Your task to perform on an android device: turn off notifications in google photos Image 0: 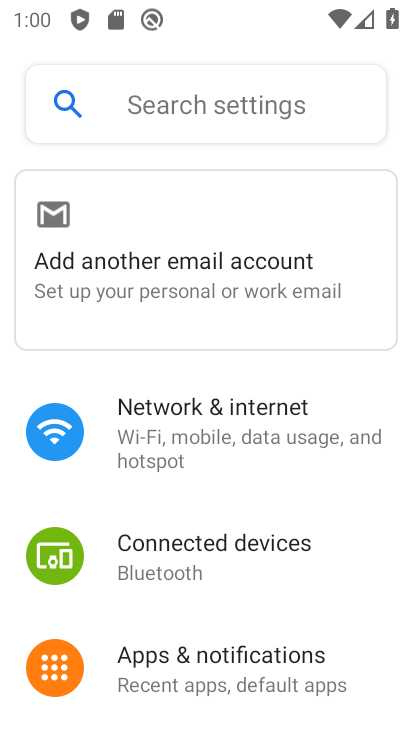
Step 0: press home button
Your task to perform on an android device: turn off notifications in google photos Image 1: 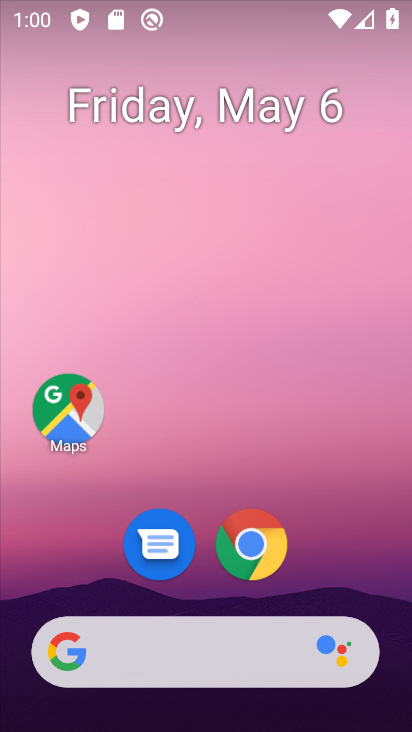
Step 1: drag from (75, 601) to (195, 49)
Your task to perform on an android device: turn off notifications in google photos Image 2: 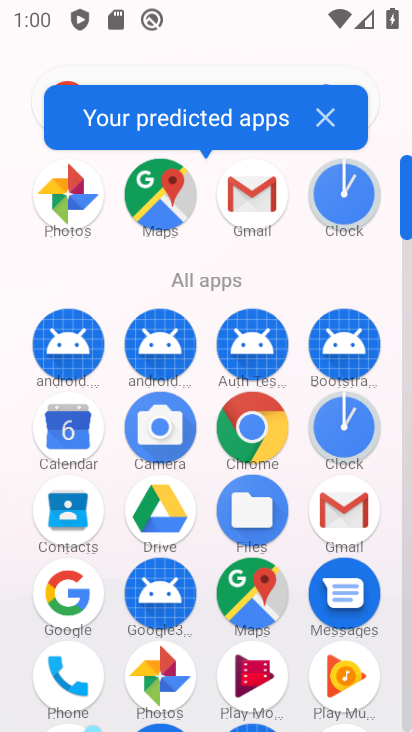
Step 2: drag from (176, 662) to (232, 357)
Your task to perform on an android device: turn off notifications in google photos Image 3: 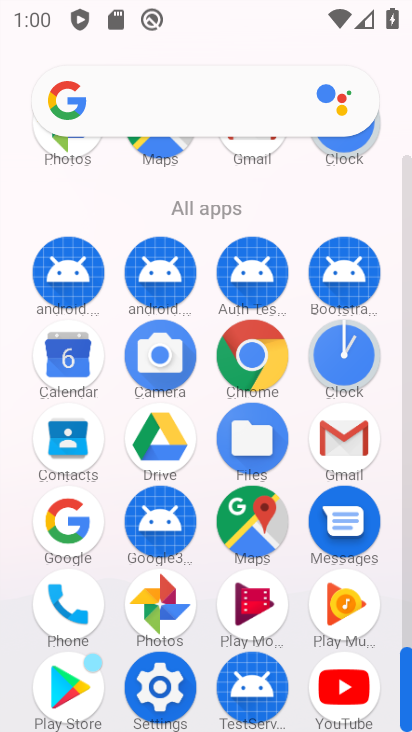
Step 3: click (171, 590)
Your task to perform on an android device: turn off notifications in google photos Image 4: 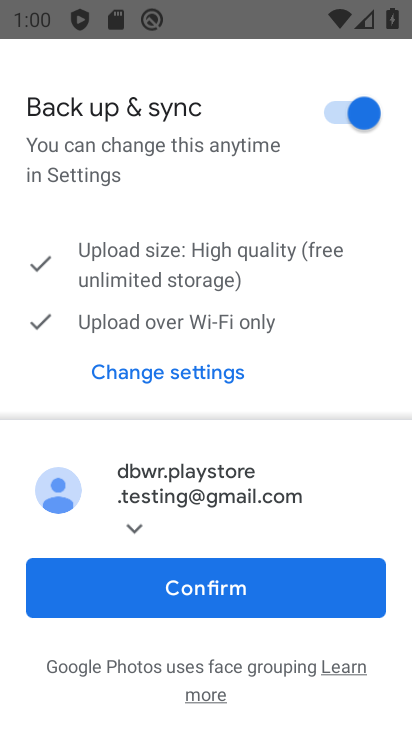
Step 4: click (194, 597)
Your task to perform on an android device: turn off notifications in google photos Image 5: 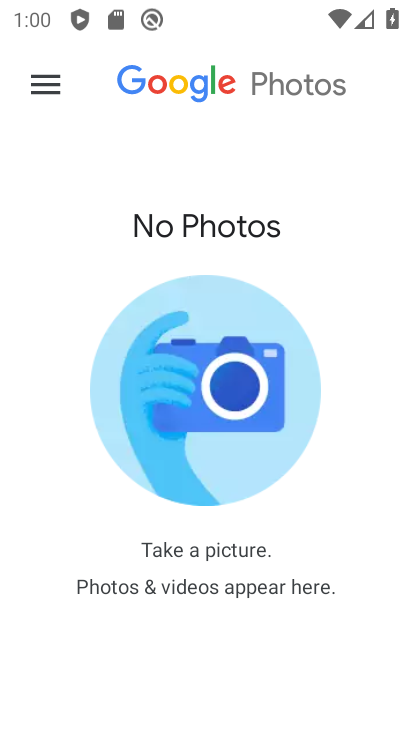
Step 5: click (57, 78)
Your task to perform on an android device: turn off notifications in google photos Image 6: 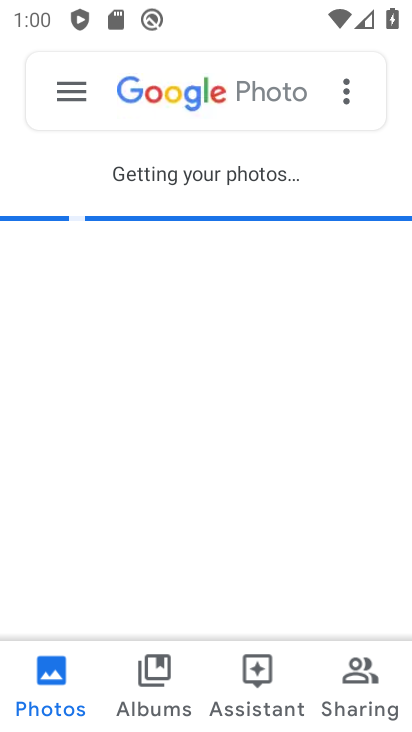
Step 6: click (56, 79)
Your task to perform on an android device: turn off notifications in google photos Image 7: 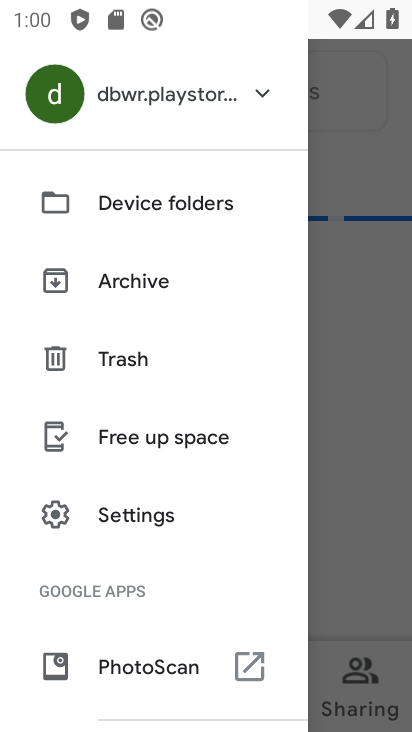
Step 7: click (145, 516)
Your task to perform on an android device: turn off notifications in google photos Image 8: 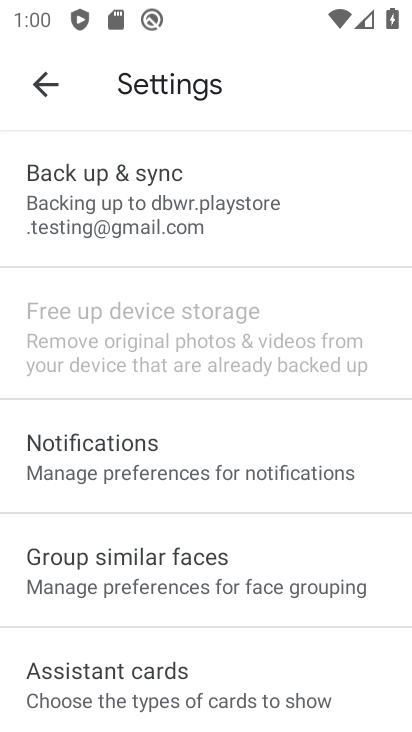
Step 8: drag from (145, 623) to (250, 202)
Your task to perform on an android device: turn off notifications in google photos Image 9: 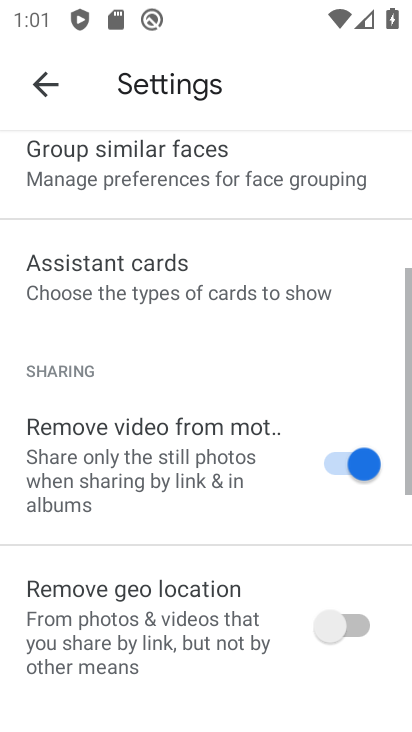
Step 9: click (144, 614)
Your task to perform on an android device: turn off notifications in google photos Image 10: 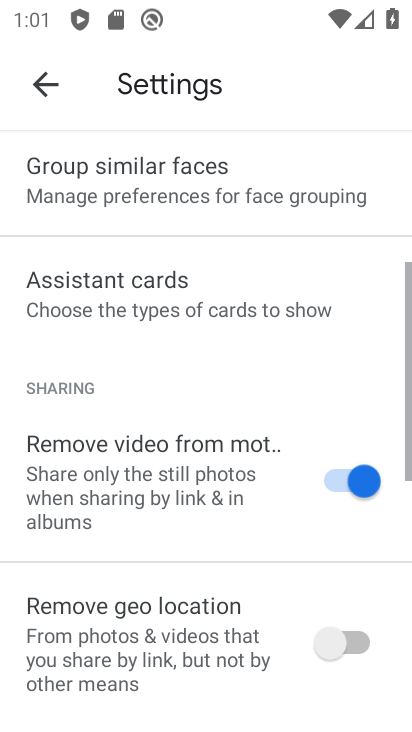
Step 10: drag from (187, 352) to (173, 624)
Your task to perform on an android device: turn off notifications in google photos Image 11: 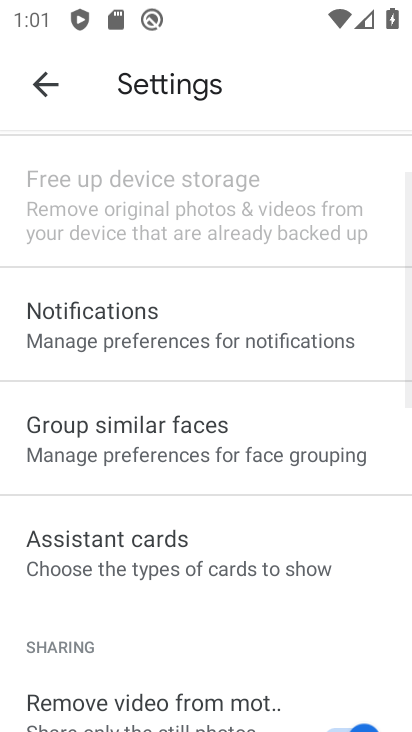
Step 11: click (176, 326)
Your task to perform on an android device: turn off notifications in google photos Image 12: 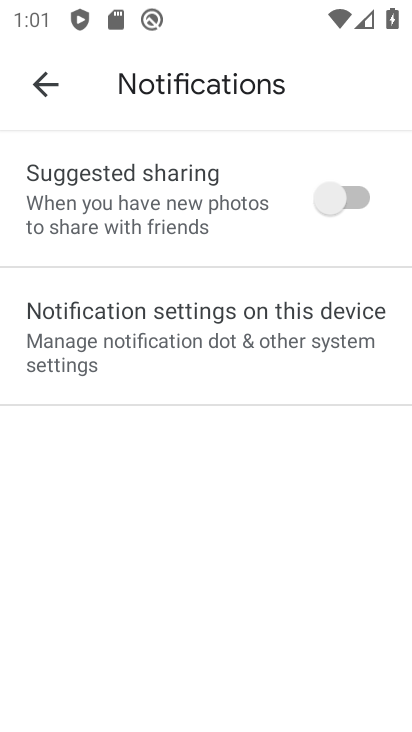
Step 12: click (275, 334)
Your task to perform on an android device: turn off notifications in google photos Image 13: 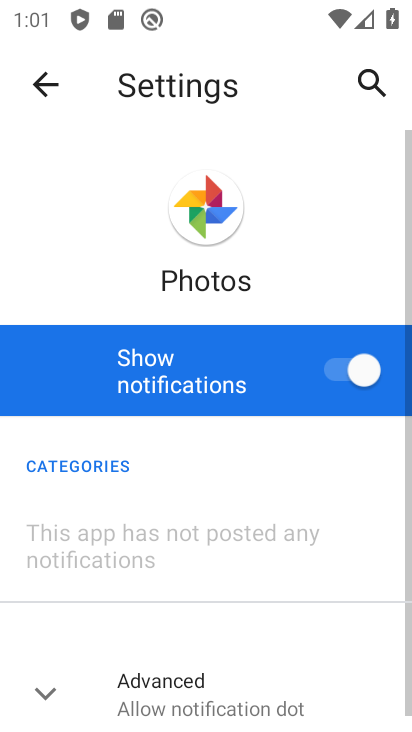
Step 13: click (342, 374)
Your task to perform on an android device: turn off notifications in google photos Image 14: 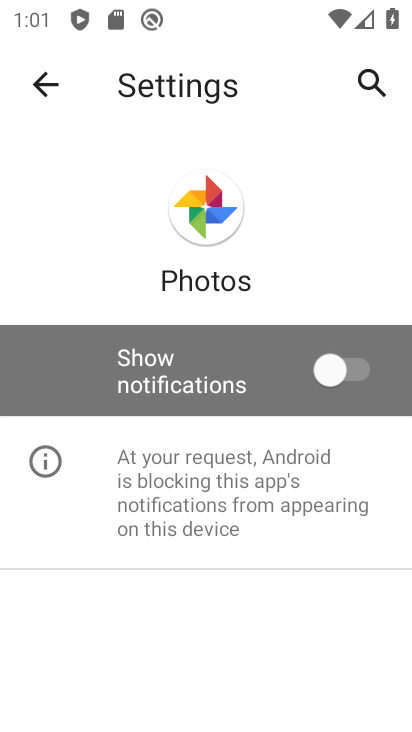
Step 14: task complete